Your task to perform on an android device: Open Google Image 0: 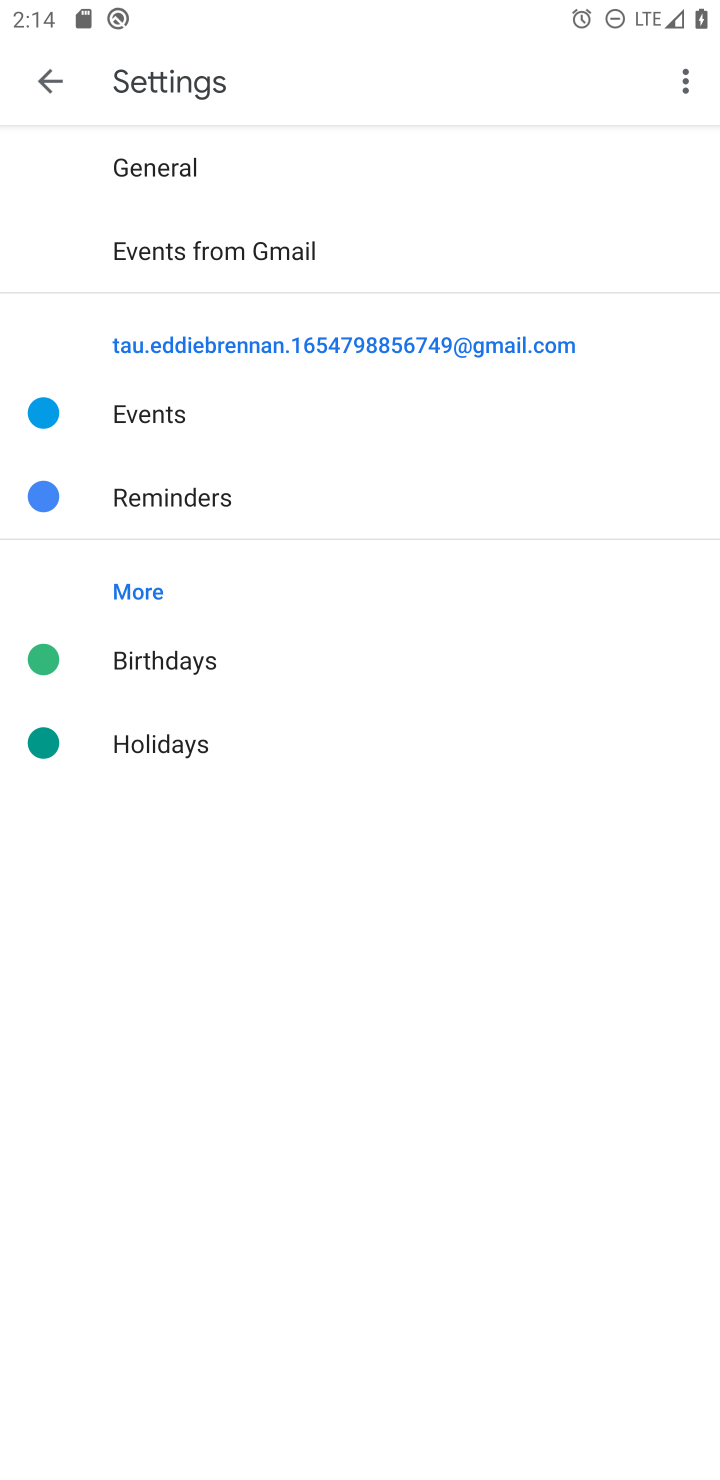
Step 0: press home button
Your task to perform on an android device: Open Google Image 1: 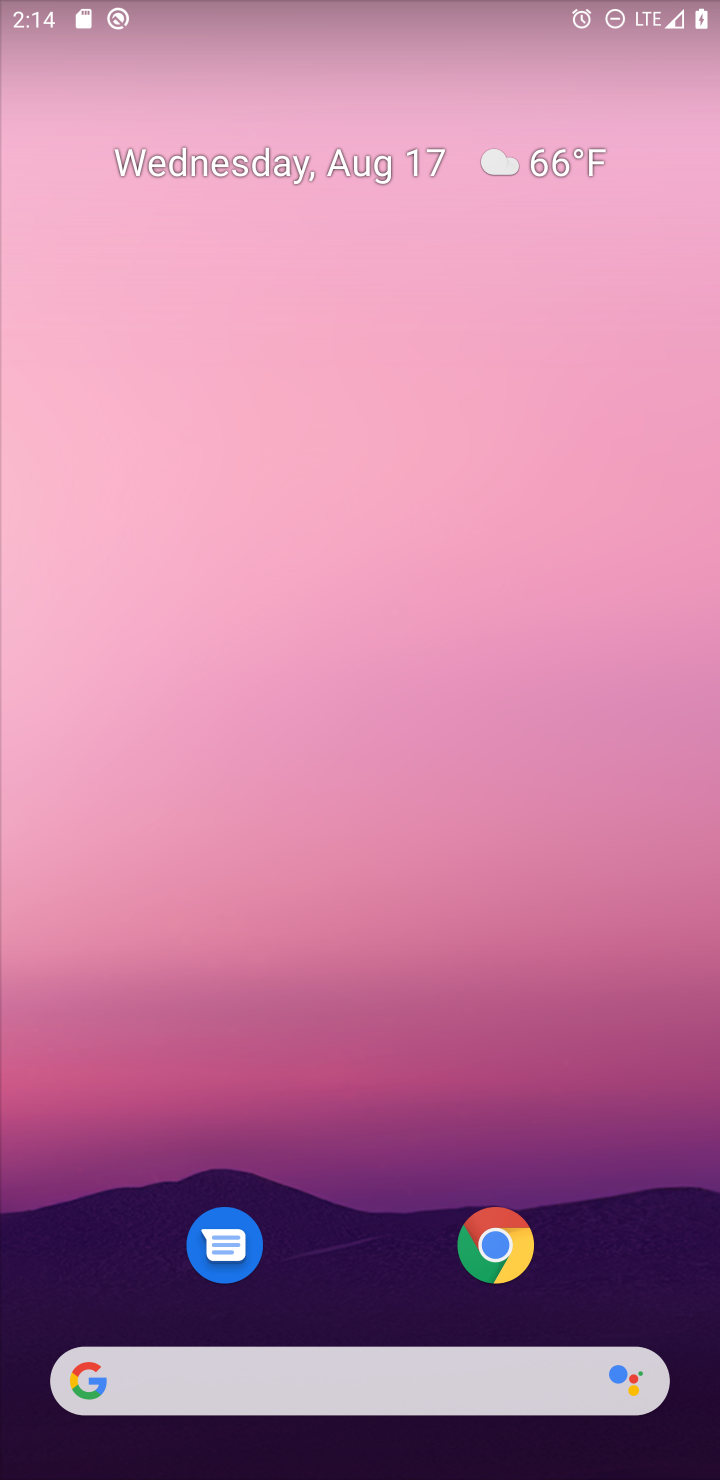
Step 1: drag from (313, 873) to (319, 94)
Your task to perform on an android device: Open Google Image 2: 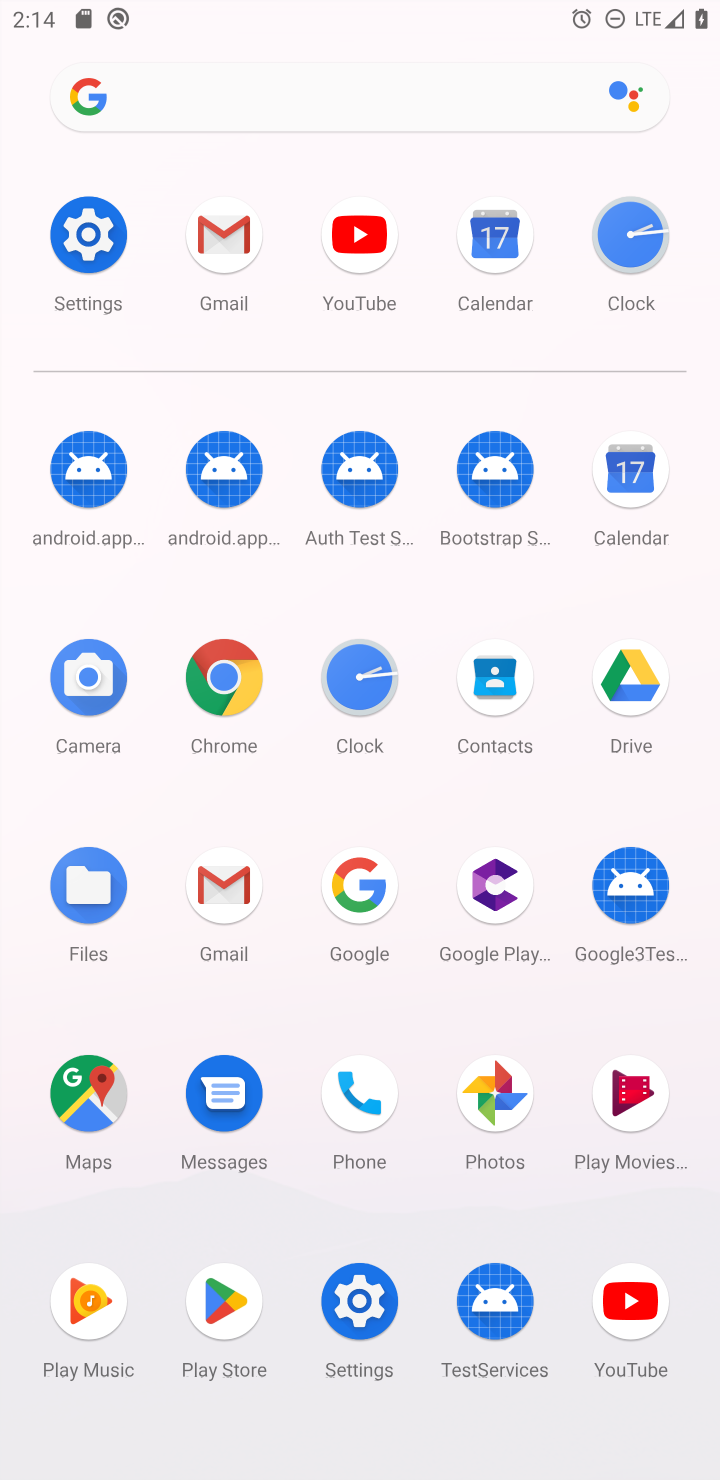
Step 2: click (359, 878)
Your task to perform on an android device: Open Google Image 3: 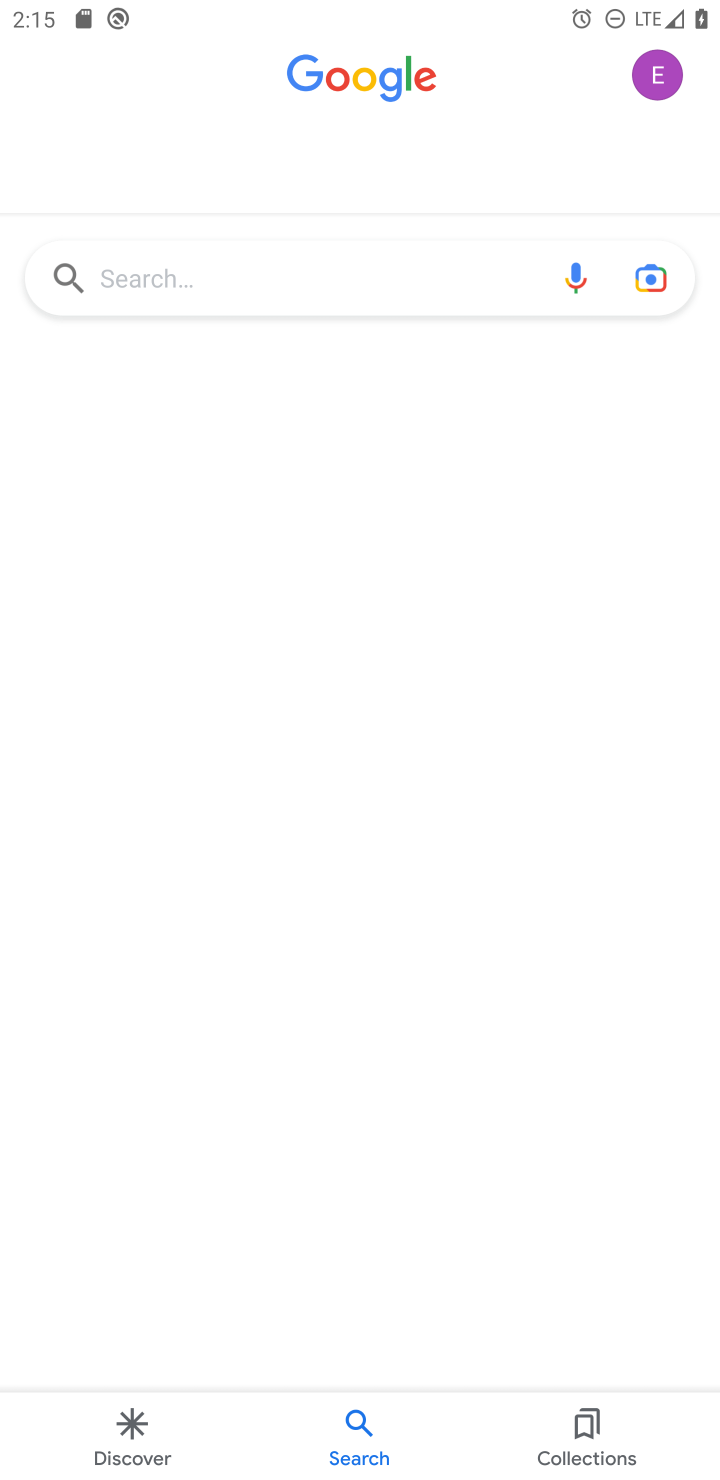
Step 3: task complete